Your task to perform on an android device: Open calendar and show me the first week of next month Image 0: 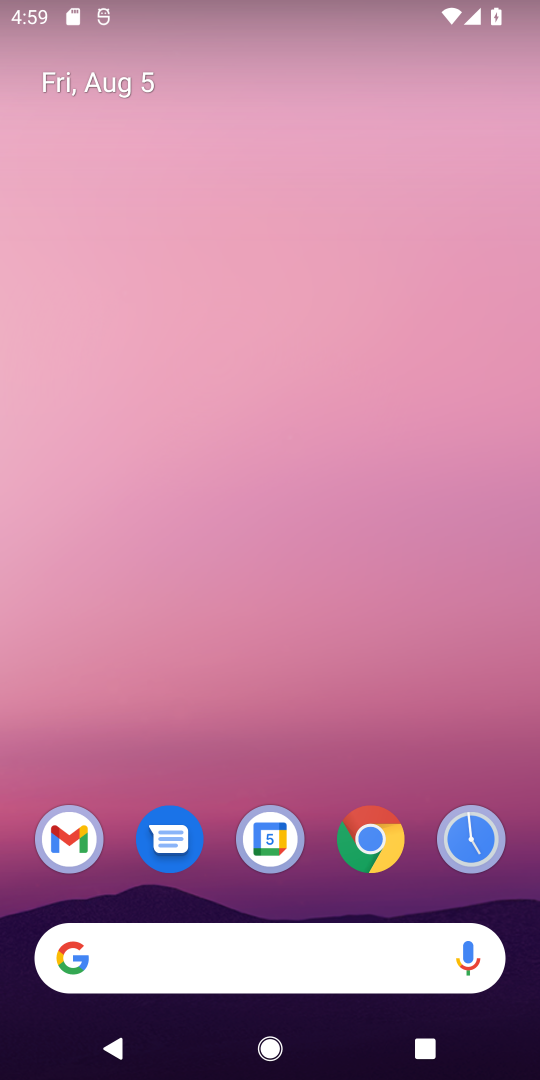
Step 0: click (271, 820)
Your task to perform on an android device: Open calendar and show me the first week of next month Image 1: 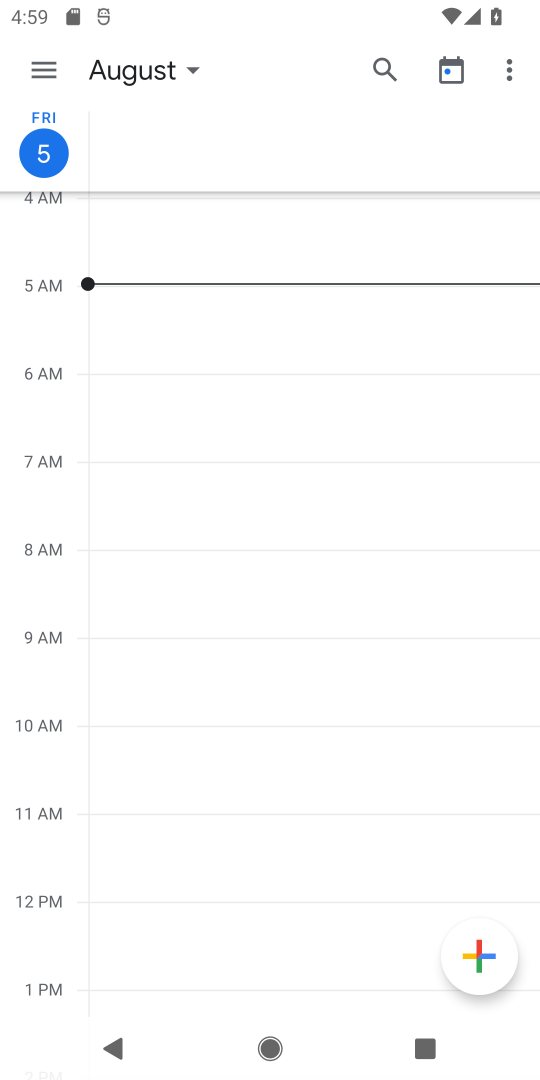
Step 1: click (176, 82)
Your task to perform on an android device: Open calendar and show me the first week of next month Image 2: 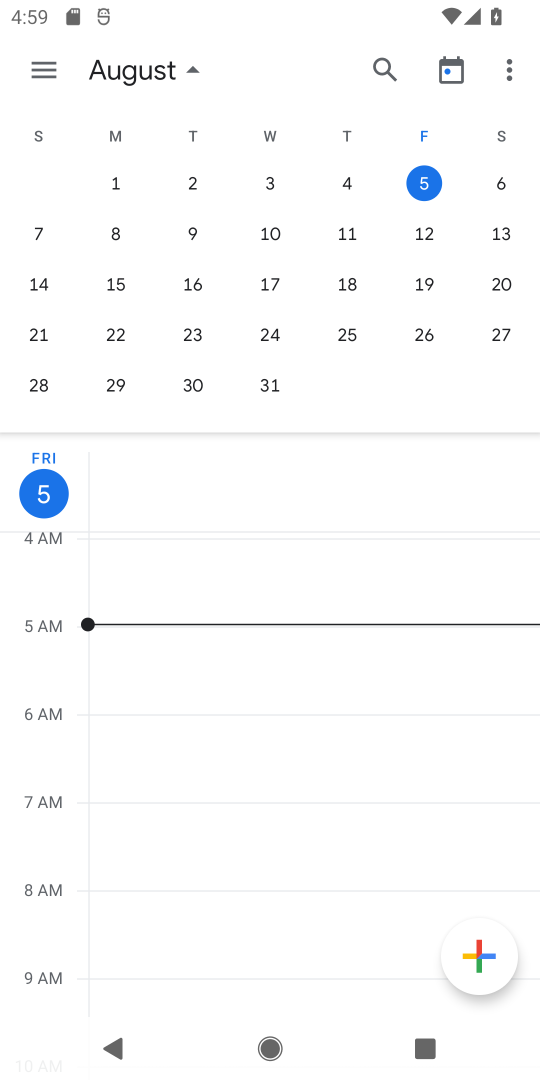
Step 2: drag from (450, 215) to (9, 295)
Your task to perform on an android device: Open calendar and show me the first week of next month Image 3: 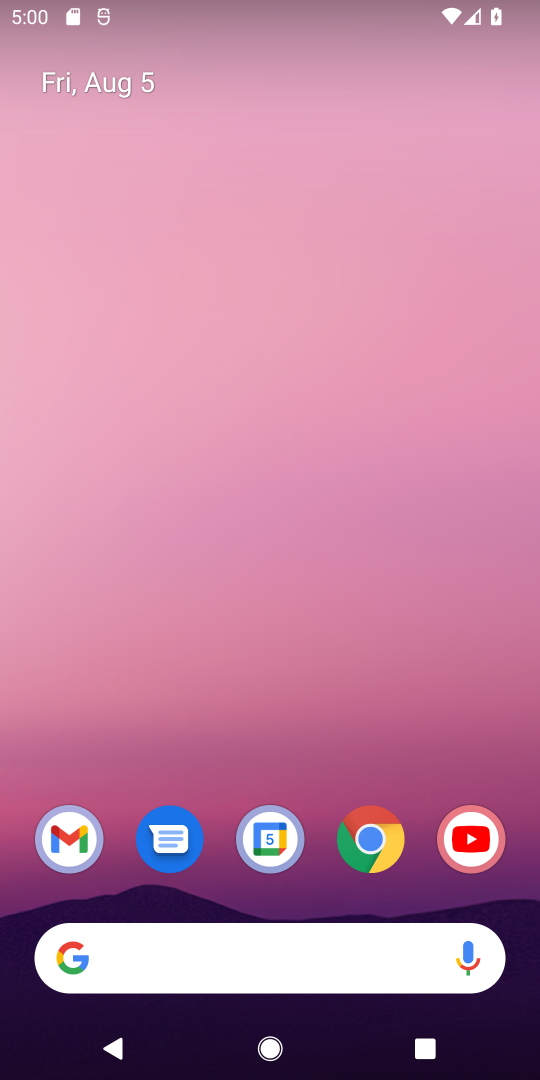
Step 3: click (248, 826)
Your task to perform on an android device: Open calendar and show me the first week of next month Image 4: 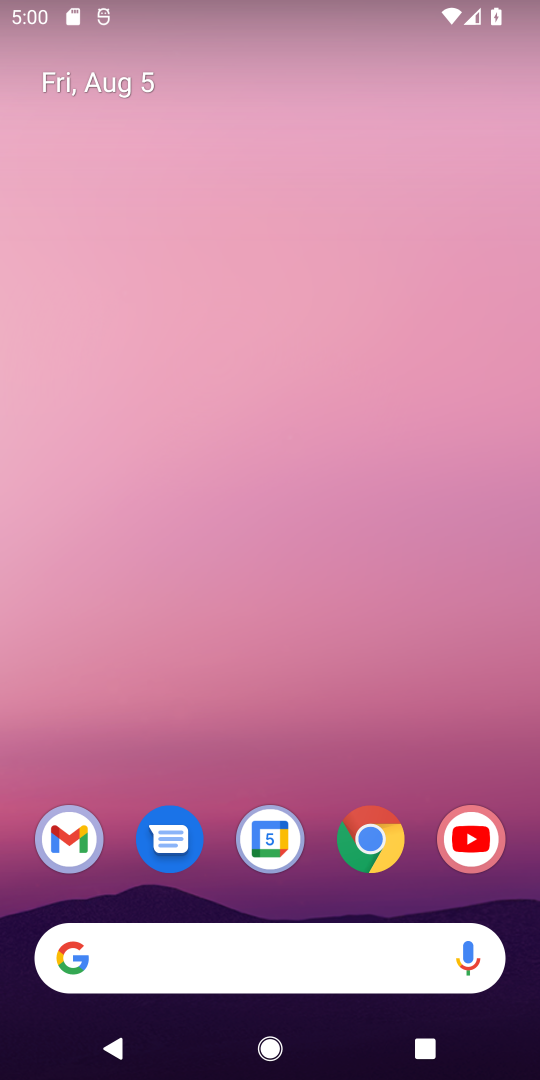
Step 4: click (262, 856)
Your task to perform on an android device: Open calendar and show me the first week of next month Image 5: 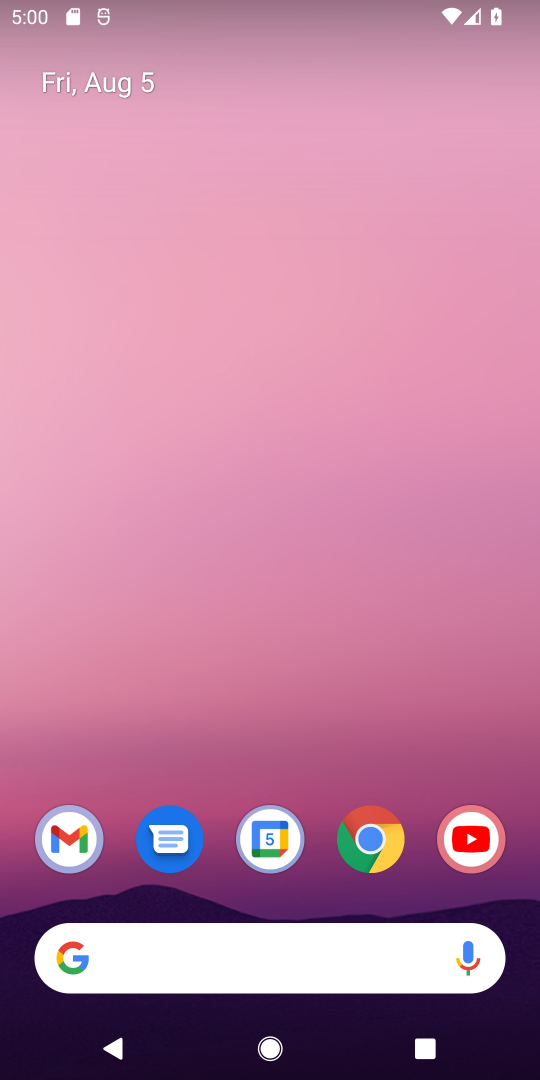
Step 5: click (263, 831)
Your task to perform on an android device: Open calendar and show me the first week of next month Image 6: 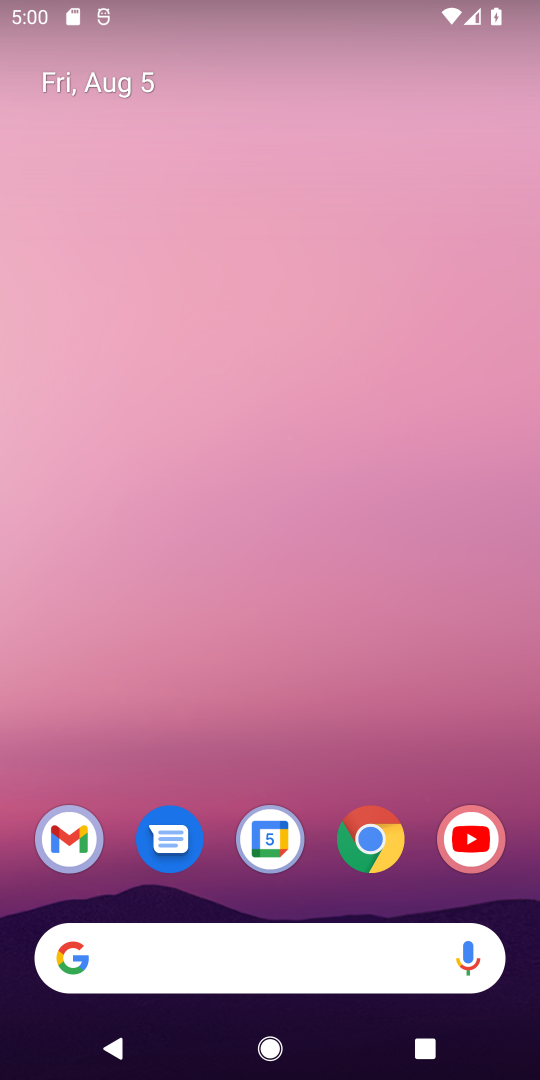
Step 6: click (275, 838)
Your task to perform on an android device: Open calendar and show me the first week of next month Image 7: 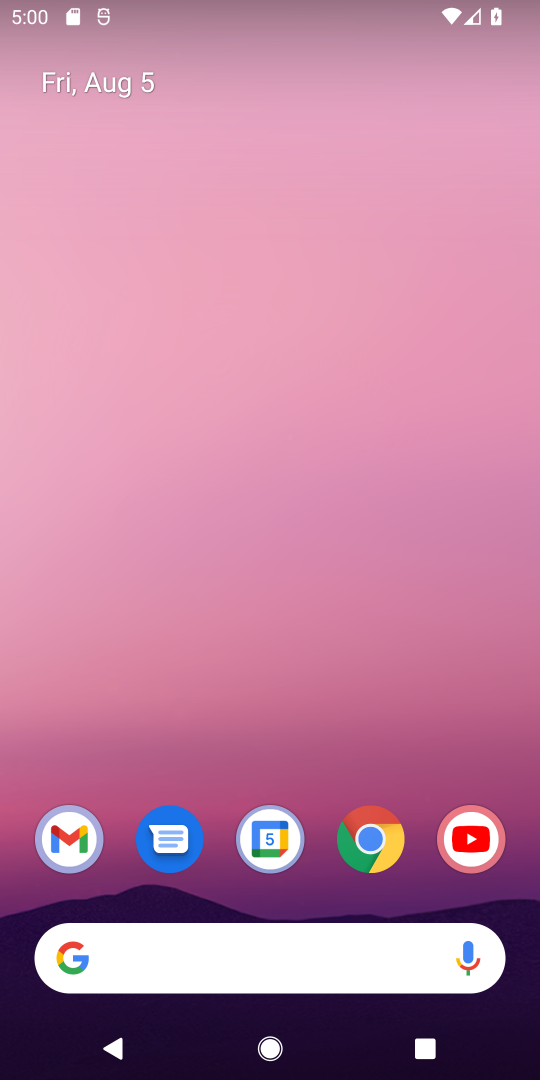
Step 7: click (275, 838)
Your task to perform on an android device: Open calendar and show me the first week of next month Image 8: 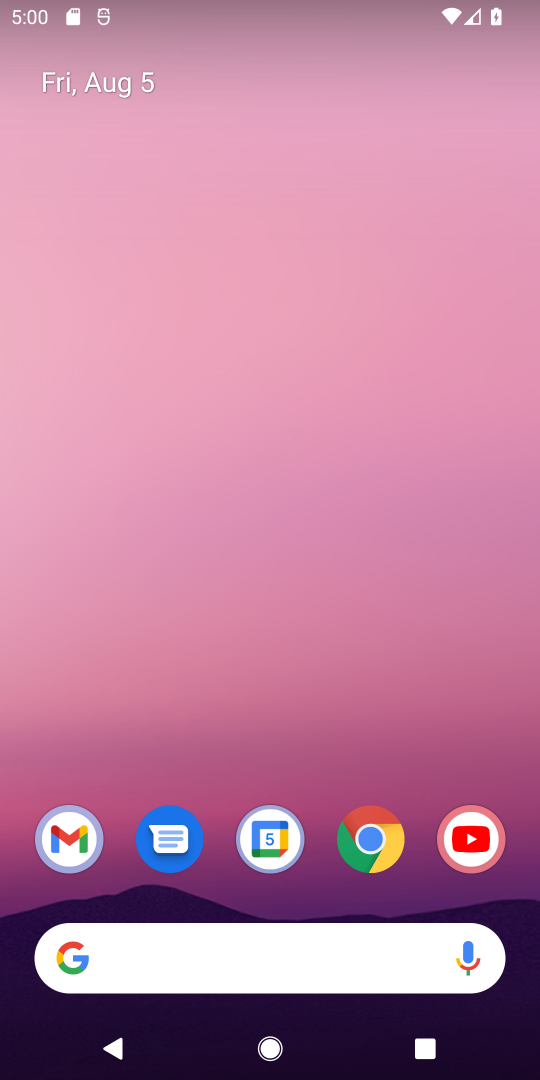
Step 8: click (275, 838)
Your task to perform on an android device: Open calendar and show me the first week of next month Image 9: 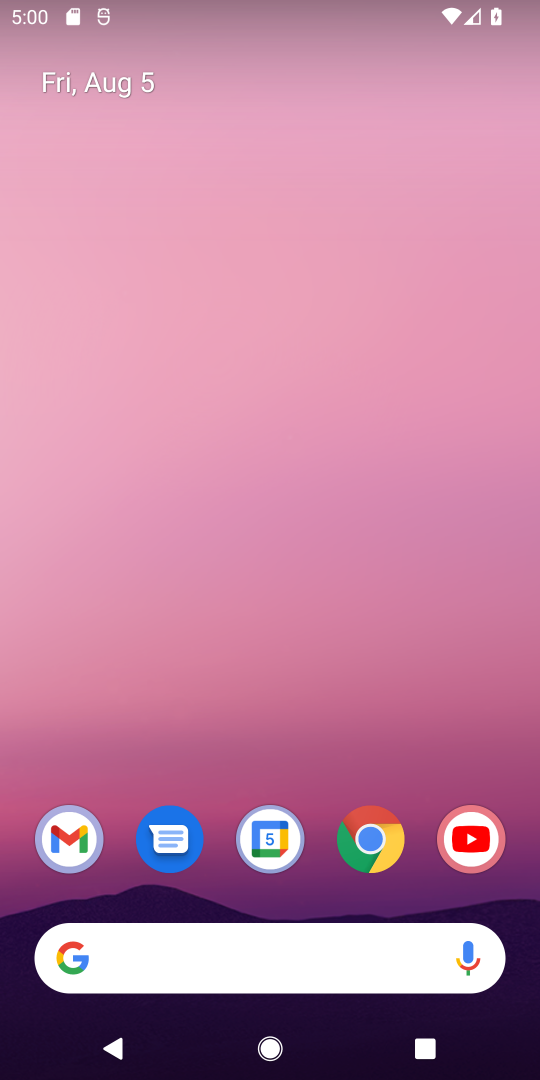
Step 9: click (275, 838)
Your task to perform on an android device: Open calendar and show me the first week of next month Image 10: 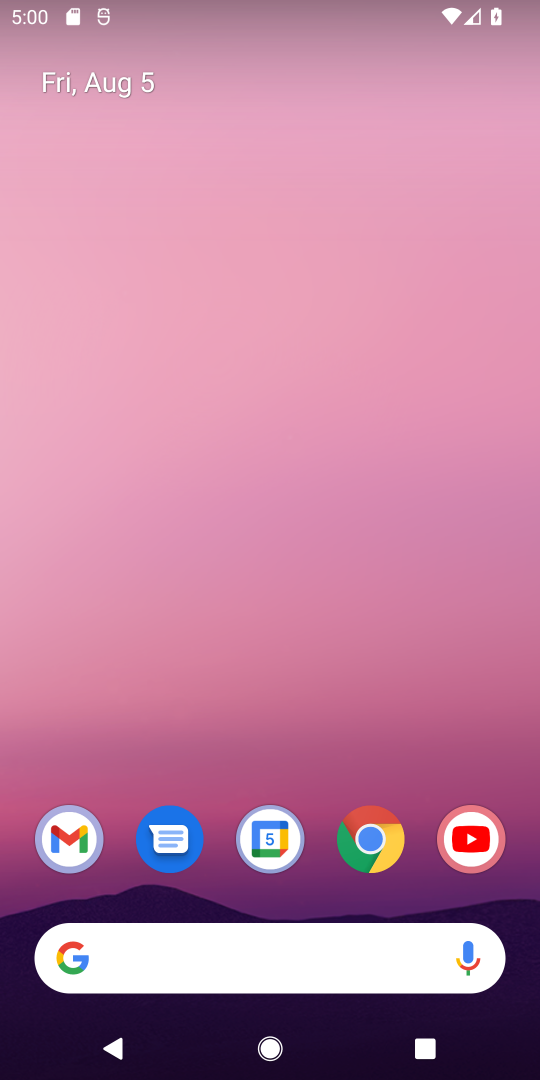
Step 10: task complete